Your task to perform on an android device: turn off data saver in the chrome app Image 0: 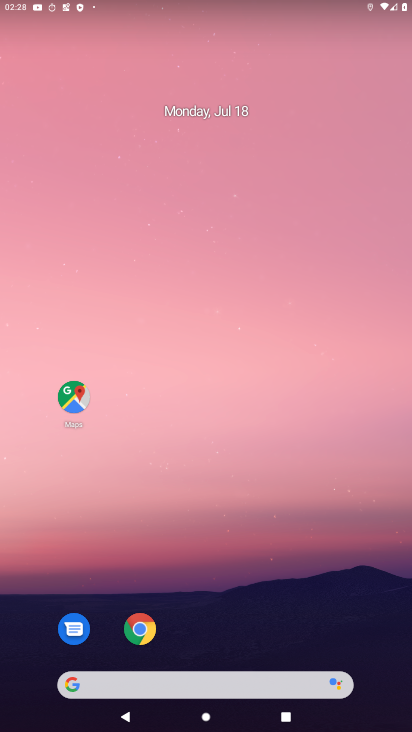
Step 0: click (135, 620)
Your task to perform on an android device: turn off data saver in the chrome app Image 1: 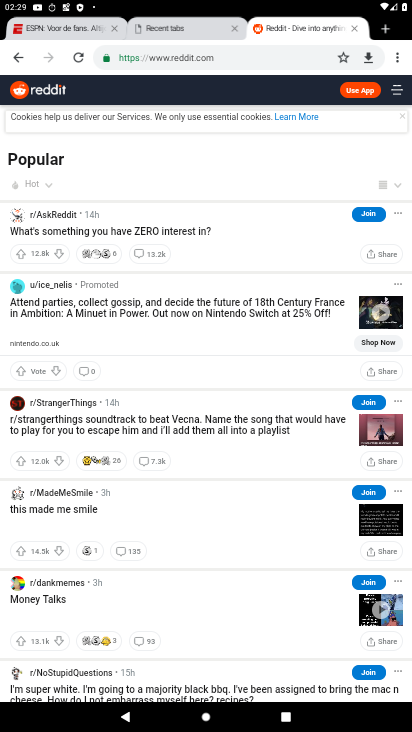
Step 1: click (396, 62)
Your task to perform on an android device: turn off data saver in the chrome app Image 2: 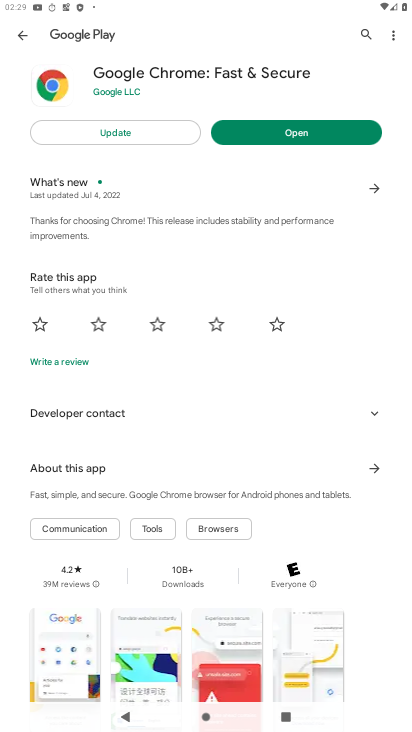
Step 2: press back button
Your task to perform on an android device: turn off data saver in the chrome app Image 3: 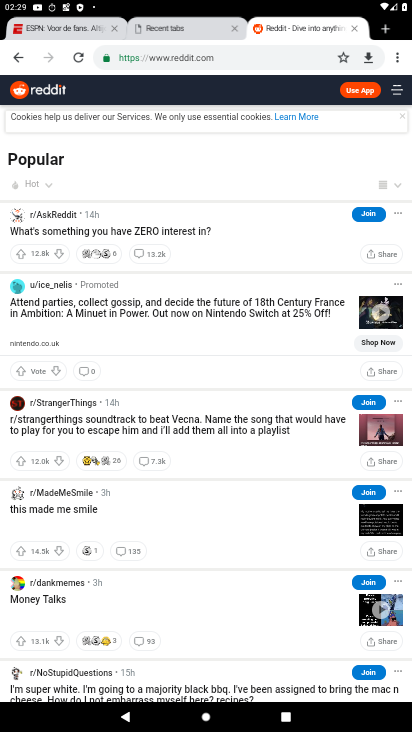
Step 3: click (395, 57)
Your task to perform on an android device: turn off data saver in the chrome app Image 4: 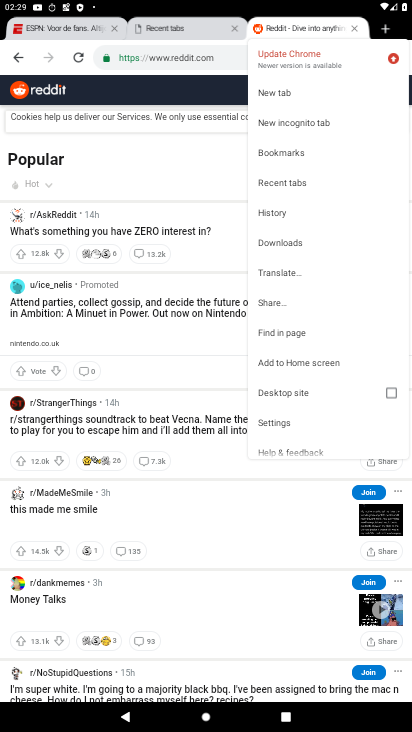
Step 4: click (298, 422)
Your task to perform on an android device: turn off data saver in the chrome app Image 5: 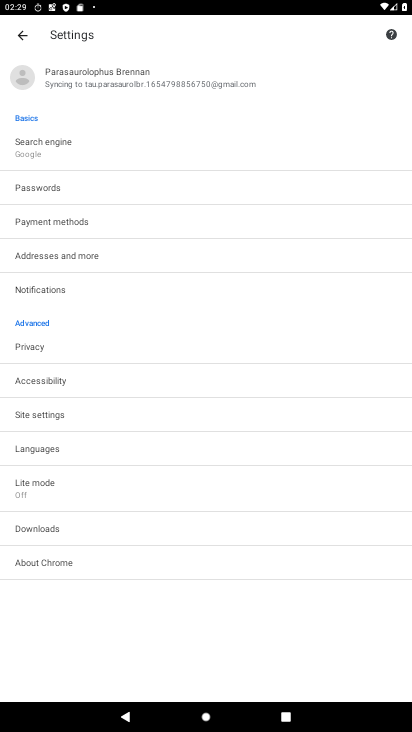
Step 5: click (53, 489)
Your task to perform on an android device: turn off data saver in the chrome app Image 6: 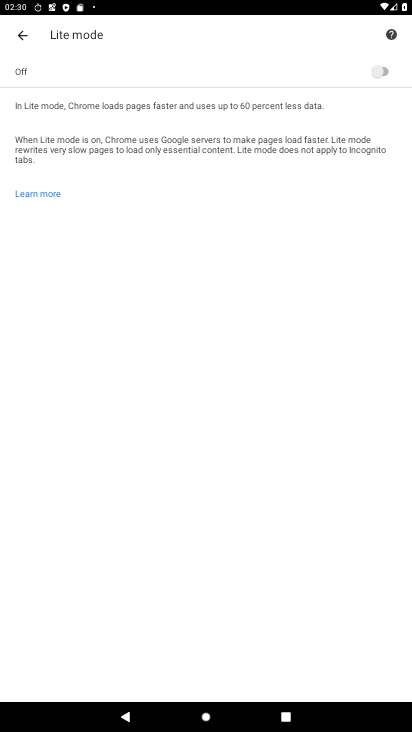
Step 6: task complete